Your task to perform on an android device: Show me recent news Image 0: 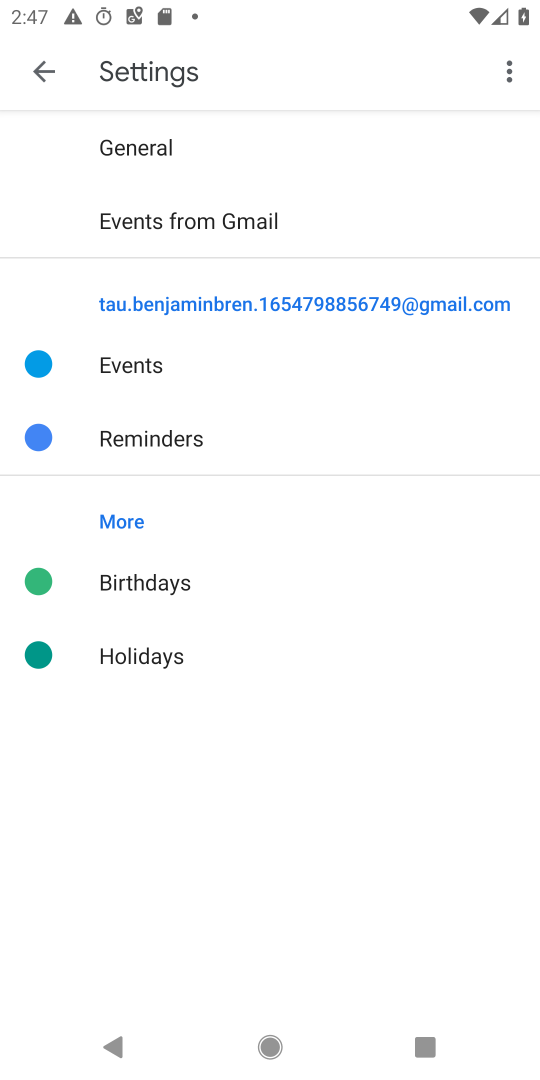
Step 0: press home button
Your task to perform on an android device: Show me recent news Image 1: 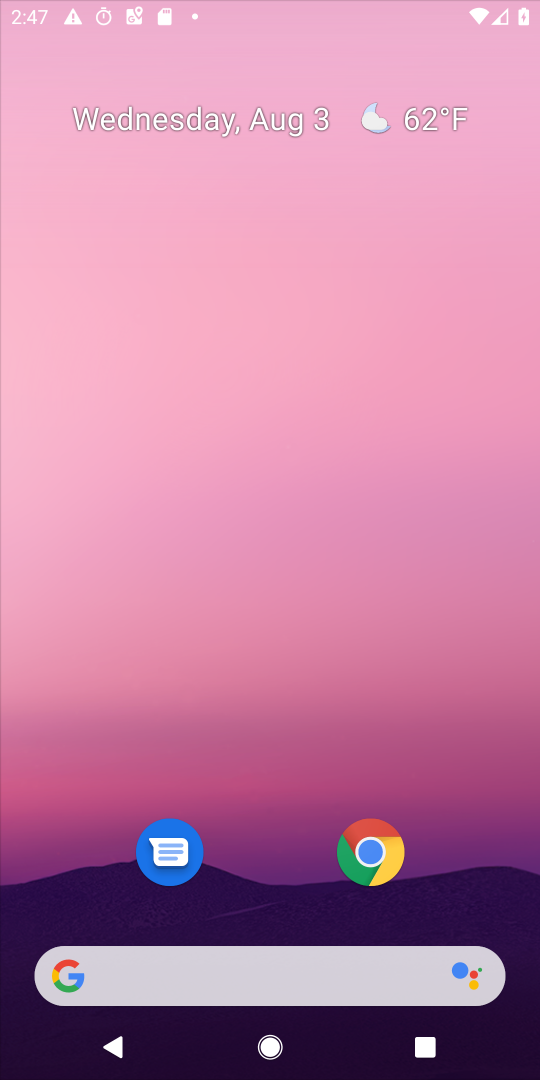
Step 1: drag from (505, 921) to (109, 42)
Your task to perform on an android device: Show me recent news Image 2: 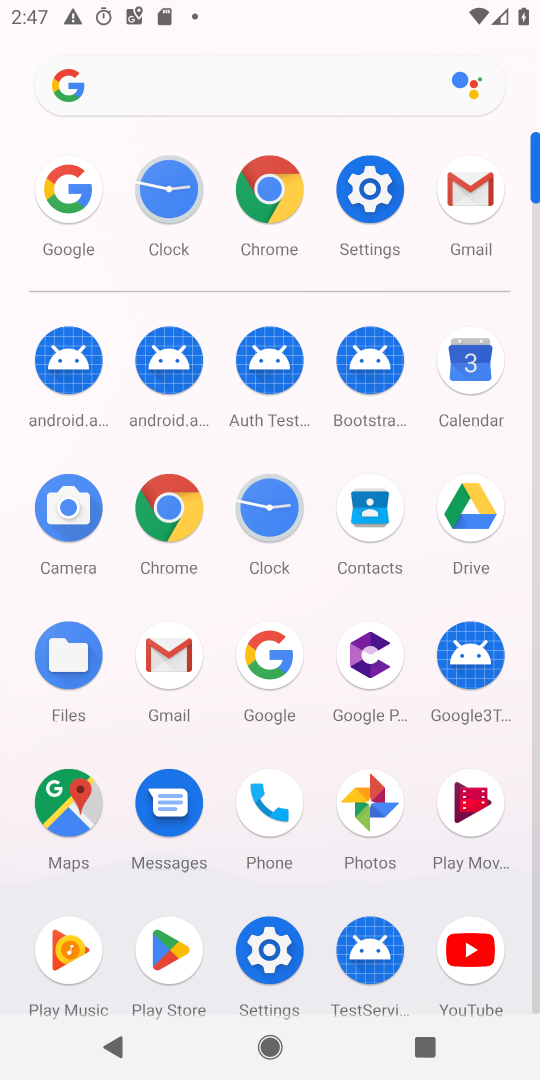
Step 2: click (266, 639)
Your task to perform on an android device: Show me recent news Image 3: 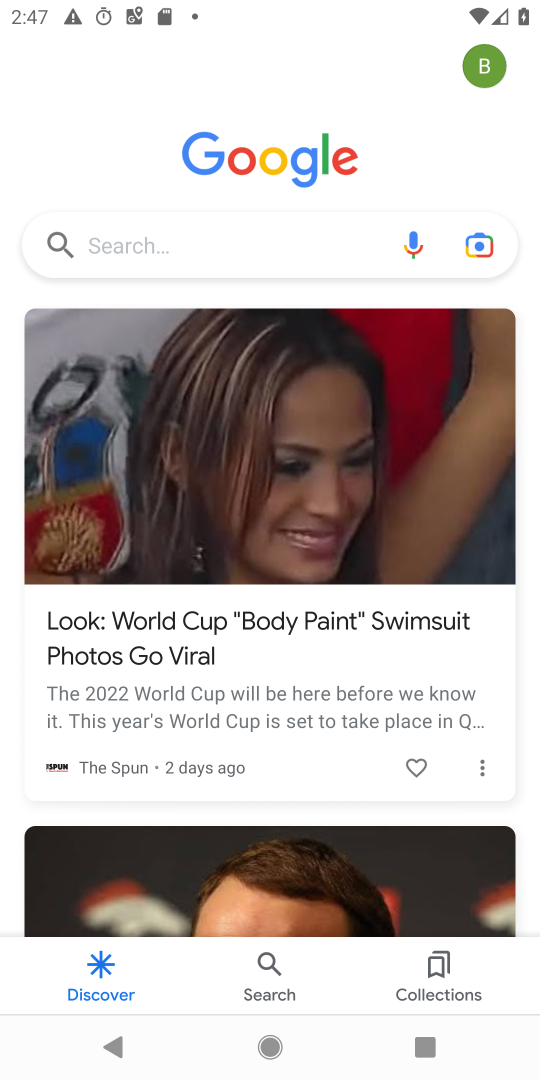
Step 3: click (137, 97)
Your task to perform on an android device: Show me recent news Image 4: 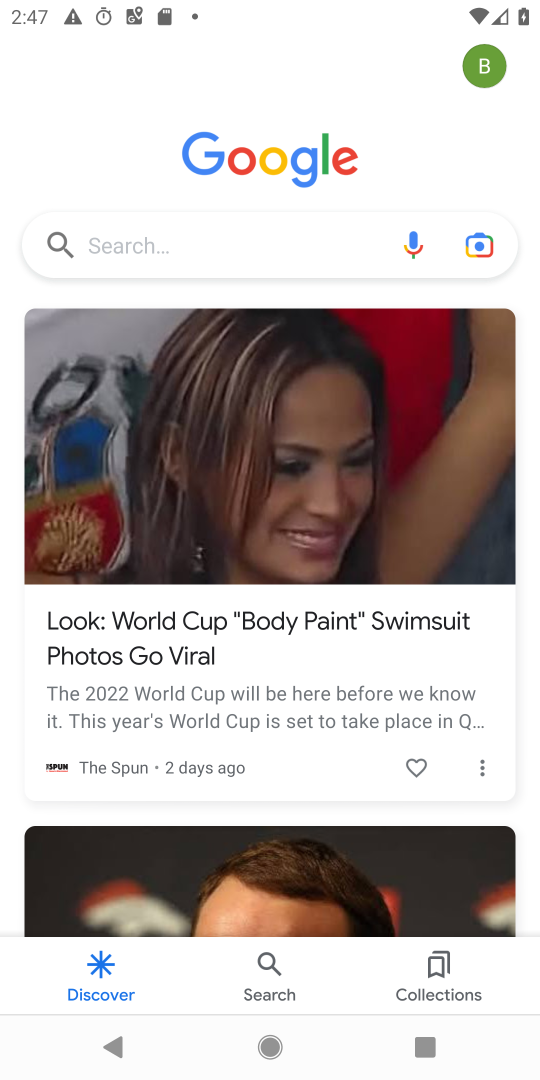
Step 4: click (143, 266)
Your task to perform on an android device: Show me recent news Image 5: 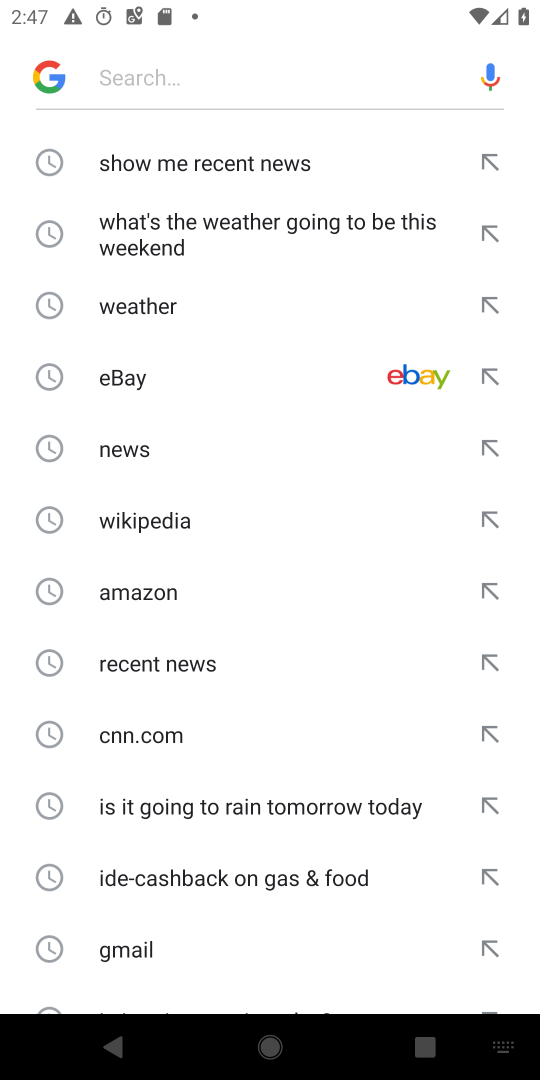
Step 5: click (185, 679)
Your task to perform on an android device: Show me recent news Image 6: 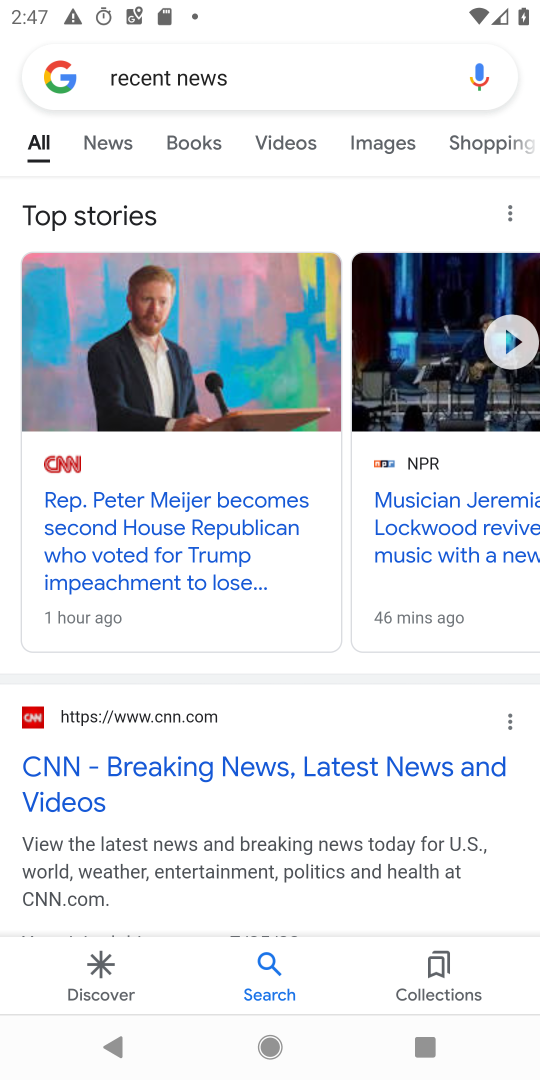
Step 6: task complete